Your task to perform on an android device: uninstall "NewsBreak: Local News & Alerts" Image 0: 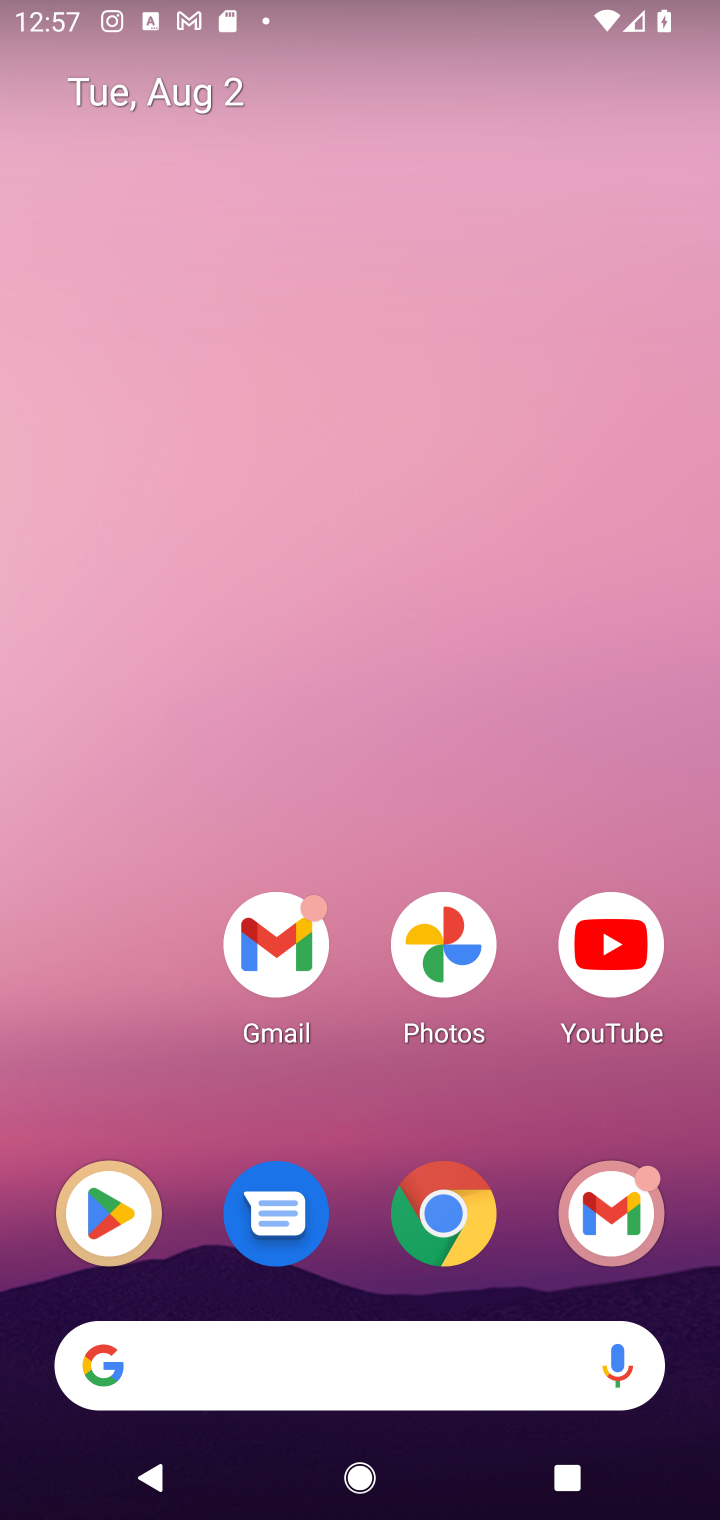
Step 0: click (112, 1240)
Your task to perform on an android device: uninstall "NewsBreak: Local News & Alerts" Image 1: 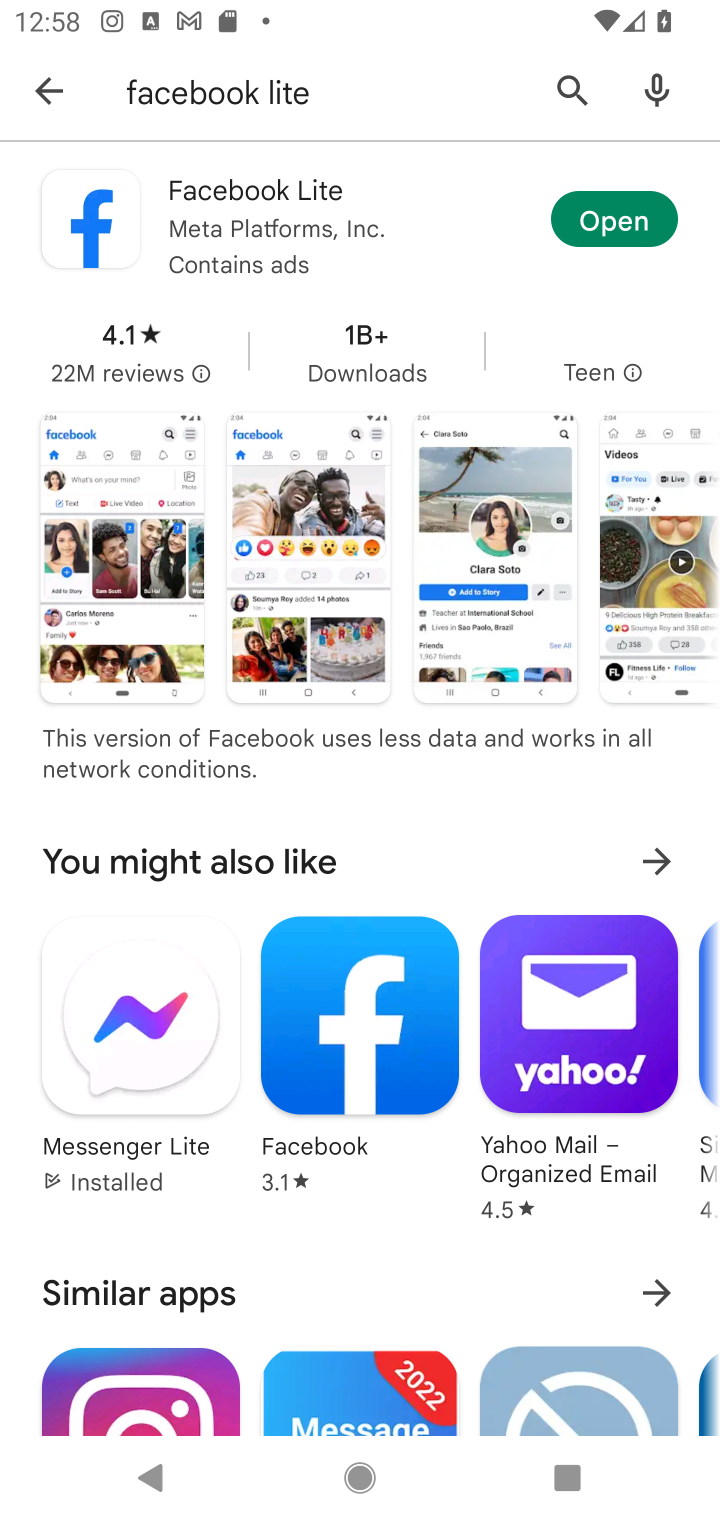
Step 1: click (46, 76)
Your task to perform on an android device: uninstall "NewsBreak: Local News & Alerts" Image 2: 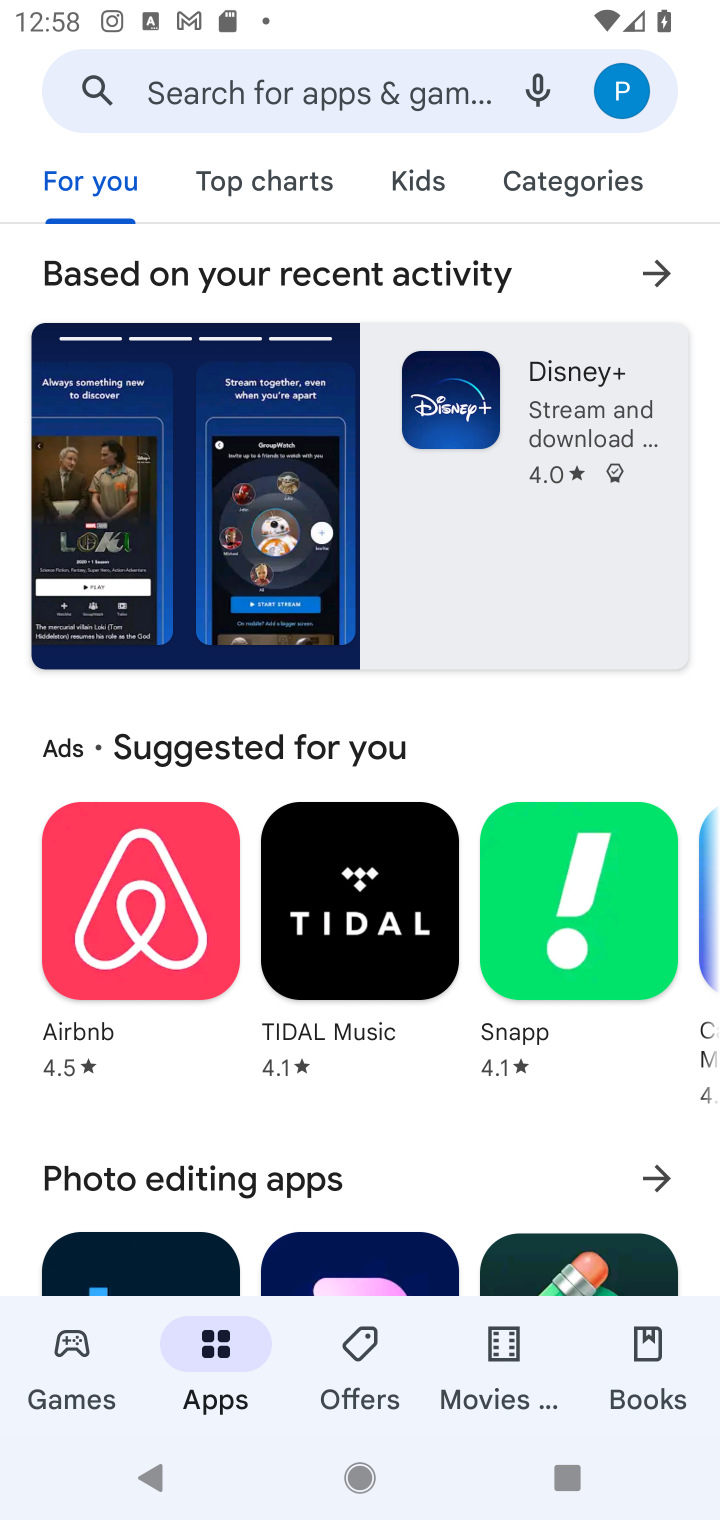
Step 2: click (336, 75)
Your task to perform on an android device: uninstall "NewsBreak: Local News & Alerts" Image 3: 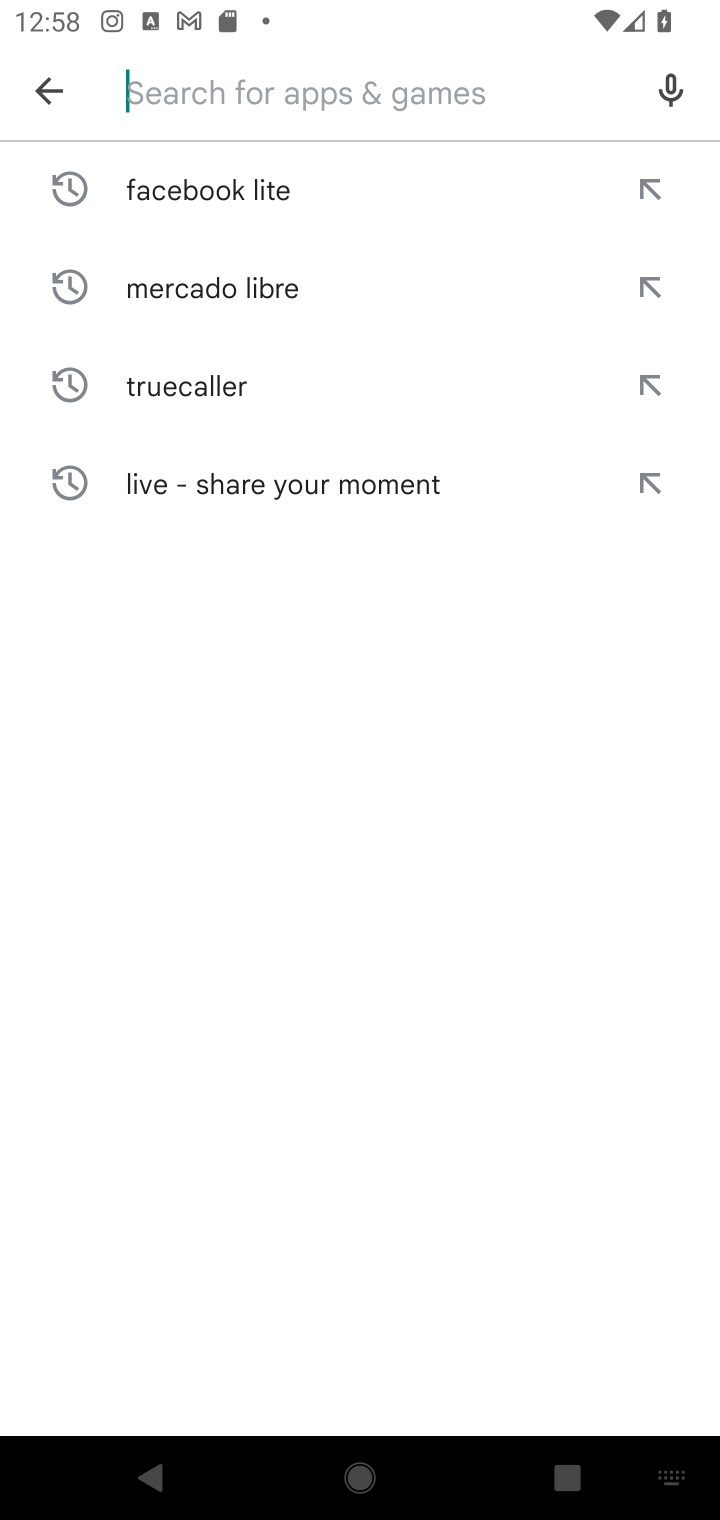
Step 3: type "NewsBreak: Local News & Alerts"
Your task to perform on an android device: uninstall "NewsBreak: Local News & Alerts" Image 4: 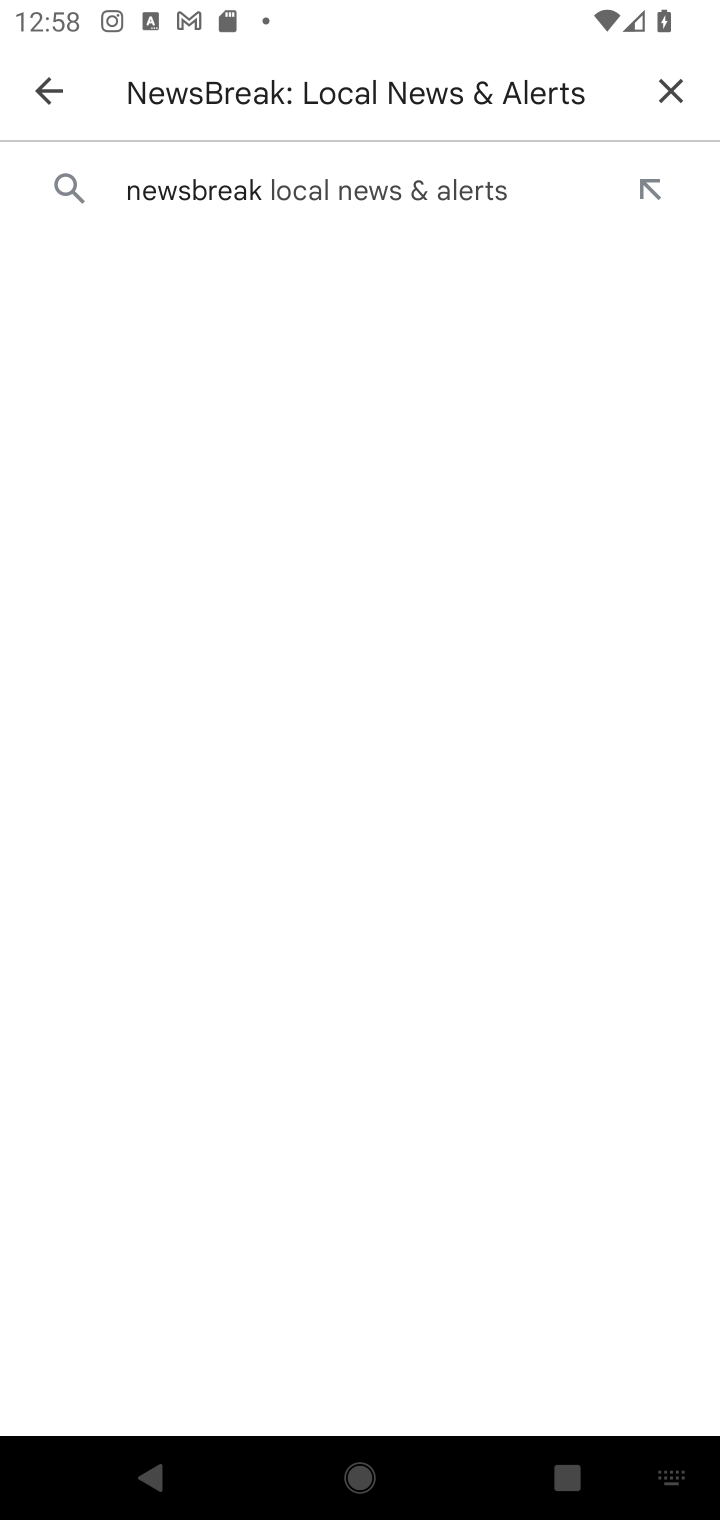
Step 4: click (244, 177)
Your task to perform on an android device: uninstall "NewsBreak: Local News & Alerts" Image 5: 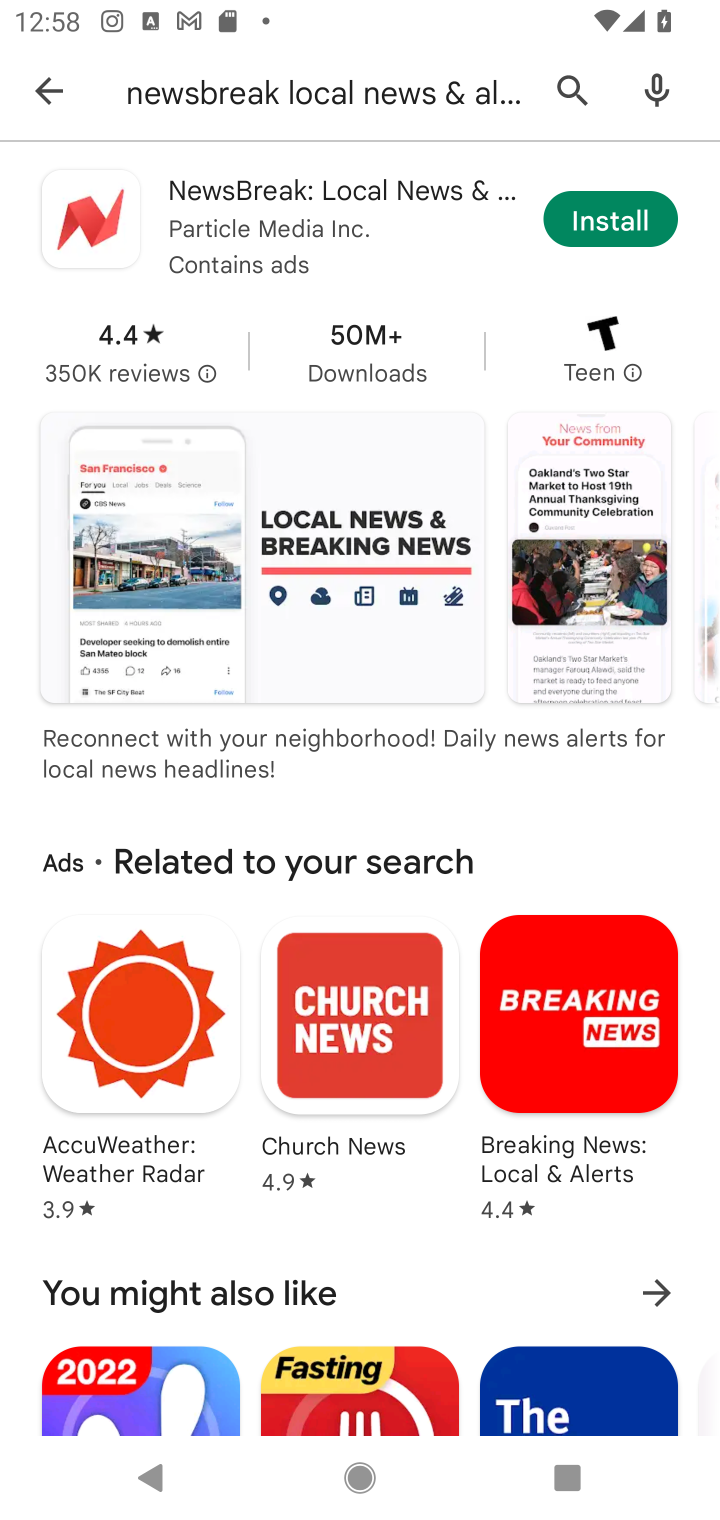
Step 5: task complete